Your task to perform on an android device: Go to sound settings Image 0: 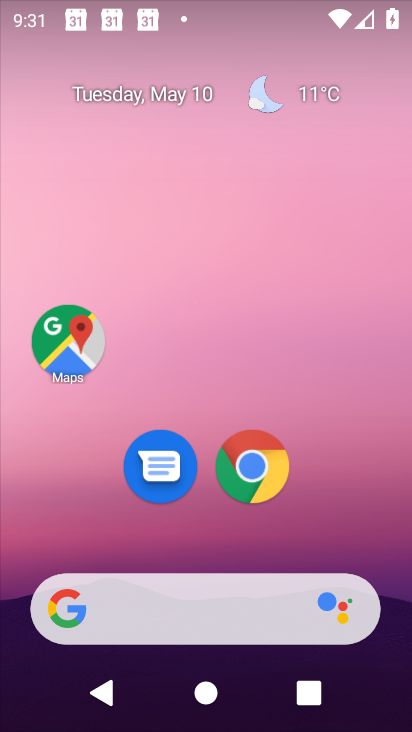
Step 0: drag from (341, 496) to (357, 95)
Your task to perform on an android device: Go to sound settings Image 1: 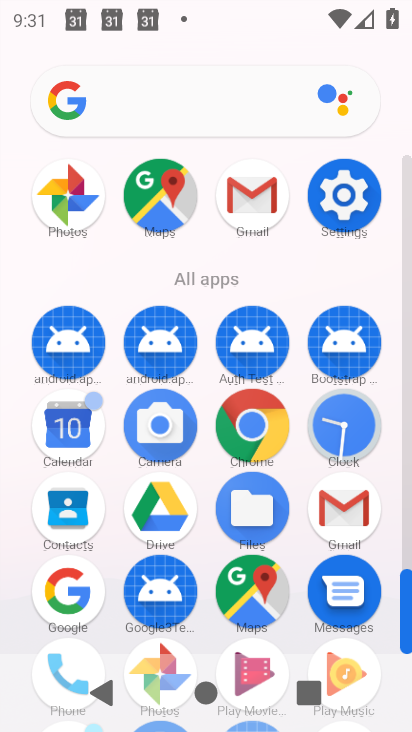
Step 1: click (354, 170)
Your task to perform on an android device: Go to sound settings Image 2: 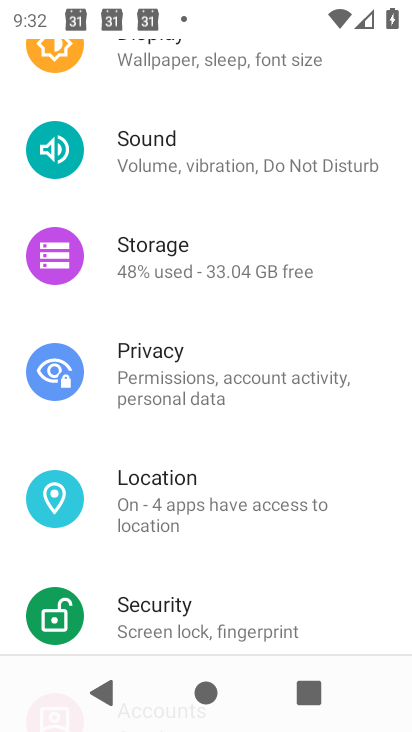
Step 2: click (175, 160)
Your task to perform on an android device: Go to sound settings Image 3: 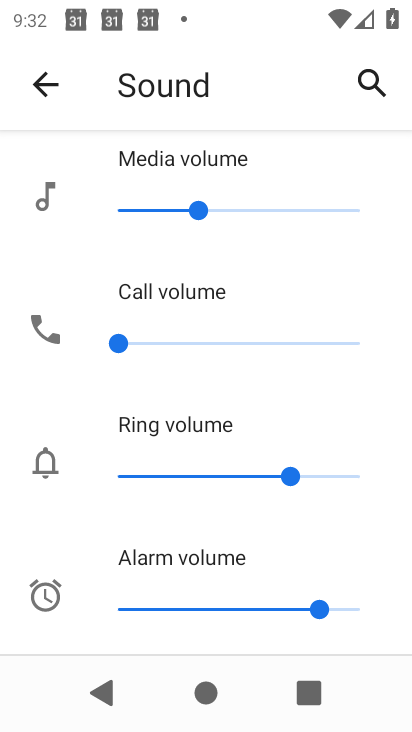
Step 3: task complete